Your task to perform on an android device: turn off location Image 0: 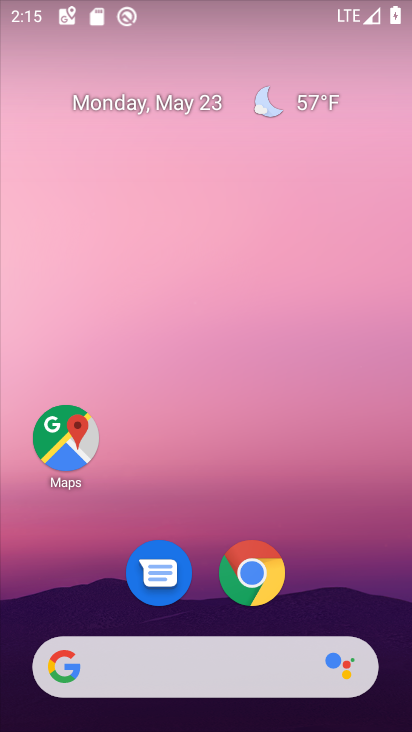
Step 0: drag from (333, 598) to (285, 59)
Your task to perform on an android device: turn off location Image 1: 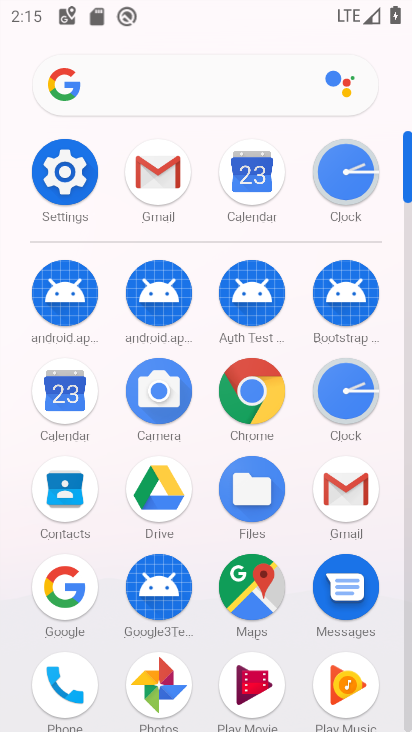
Step 1: click (60, 173)
Your task to perform on an android device: turn off location Image 2: 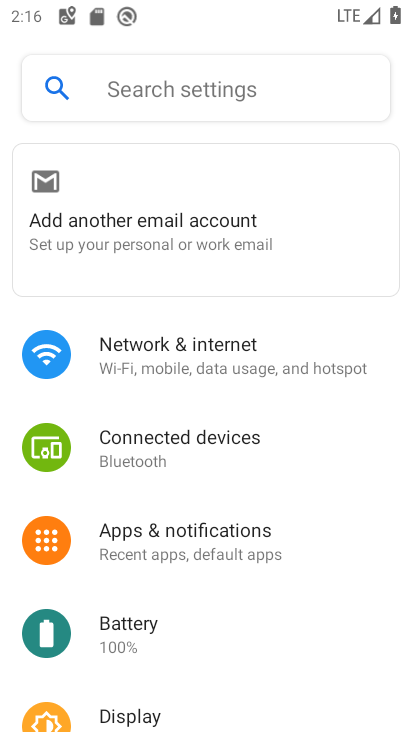
Step 2: drag from (246, 619) to (252, 211)
Your task to perform on an android device: turn off location Image 3: 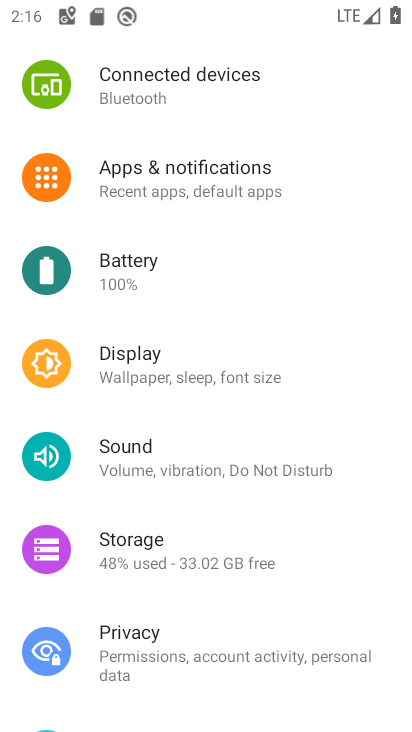
Step 3: drag from (272, 612) to (286, 196)
Your task to perform on an android device: turn off location Image 4: 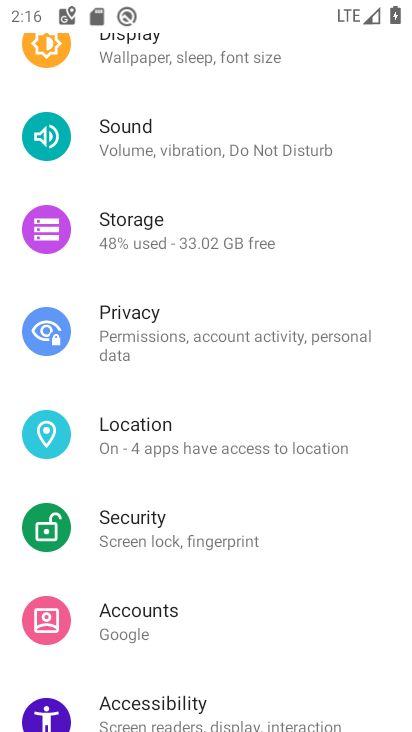
Step 4: click (216, 433)
Your task to perform on an android device: turn off location Image 5: 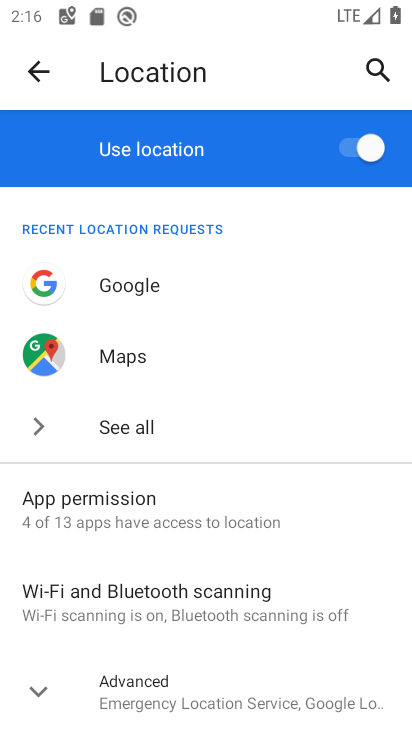
Step 5: click (354, 146)
Your task to perform on an android device: turn off location Image 6: 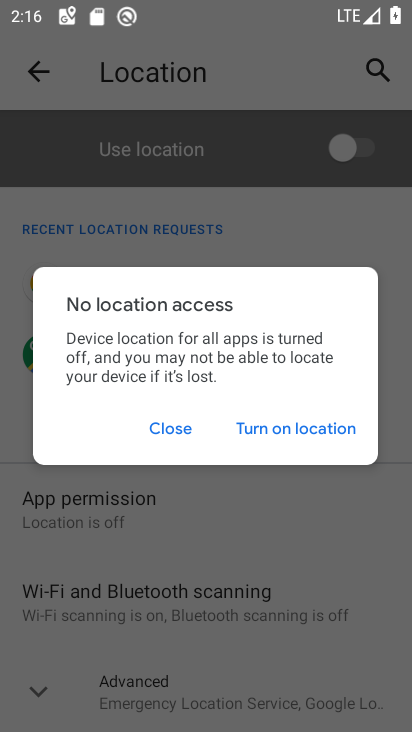
Step 6: click (177, 427)
Your task to perform on an android device: turn off location Image 7: 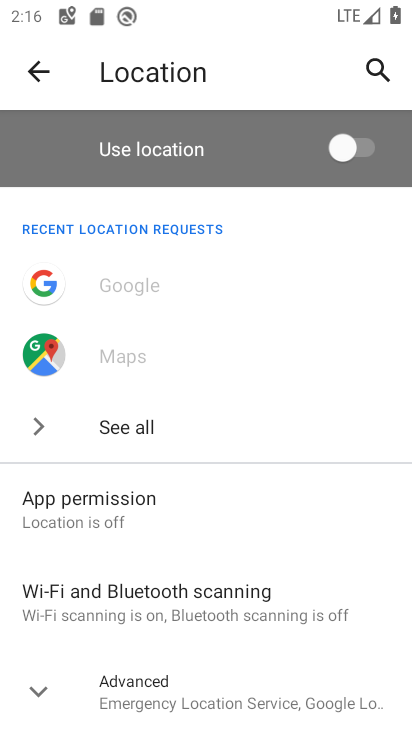
Step 7: task complete